Your task to perform on an android device: Open ESPN.com Image 0: 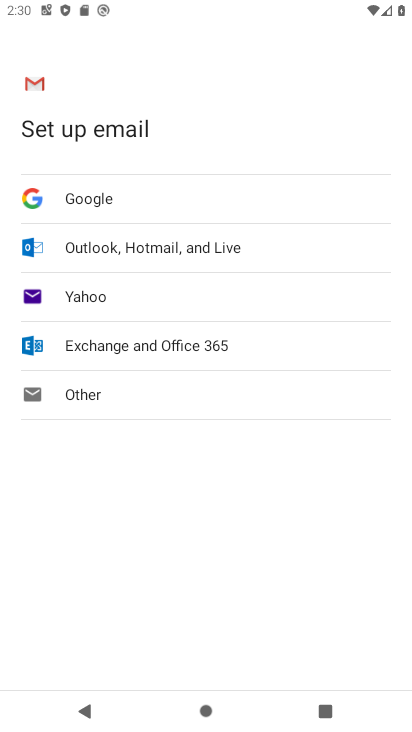
Step 0: press home button
Your task to perform on an android device: Open ESPN.com Image 1: 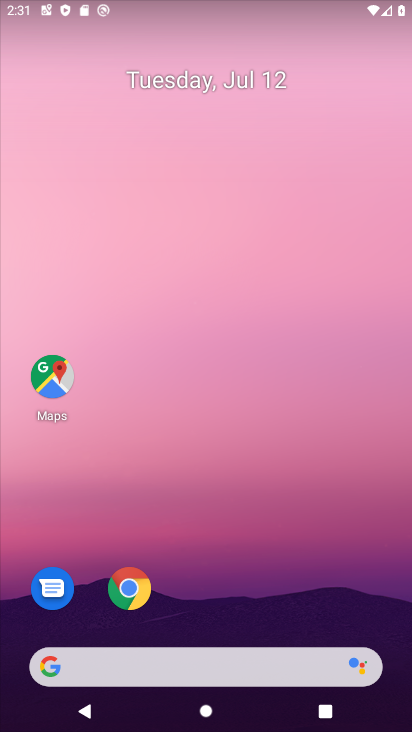
Step 1: drag from (206, 666) to (158, 55)
Your task to perform on an android device: Open ESPN.com Image 2: 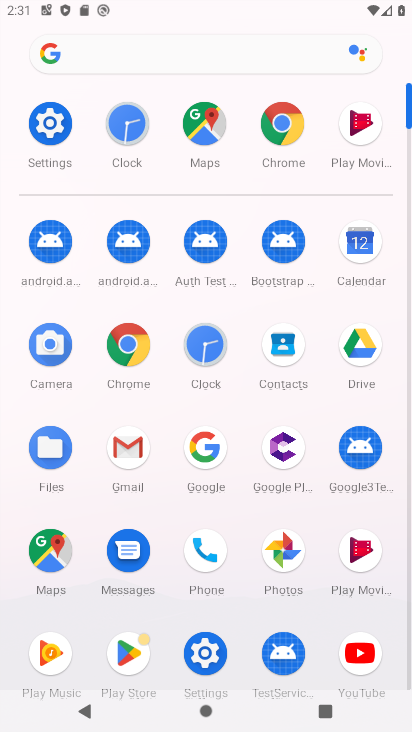
Step 2: click (271, 143)
Your task to perform on an android device: Open ESPN.com Image 3: 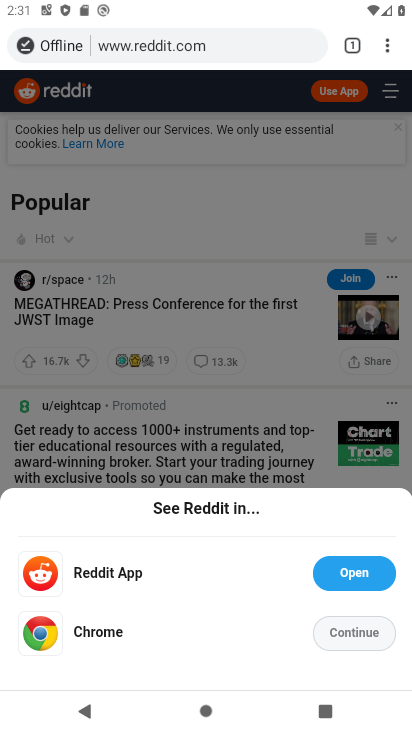
Step 3: click (199, 43)
Your task to perform on an android device: Open ESPN.com Image 4: 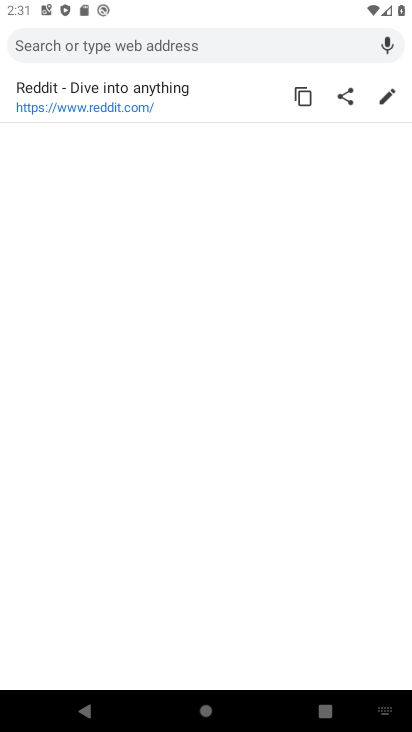
Step 4: type "espn.com"
Your task to perform on an android device: Open ESPN.com Image 5: 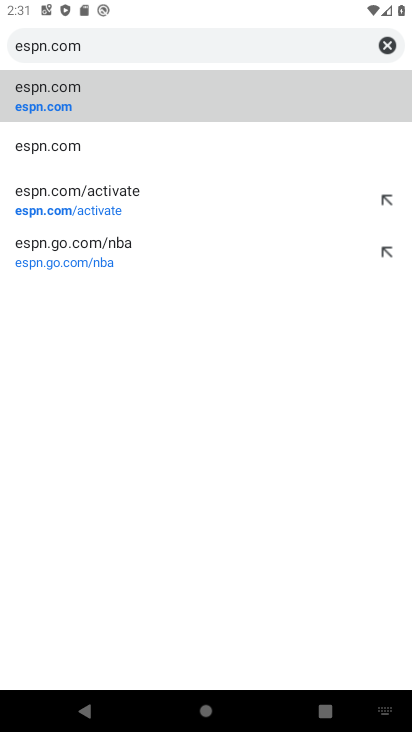
Step 5: click (238, 97)
Your task to perform on an android device: Open ESPN.com Image 6: 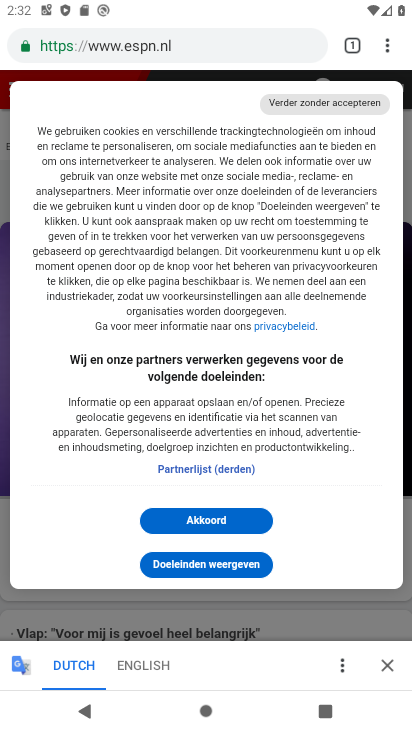
Step 6: task complete